Your task to perform on an android device: check storage Image 0: 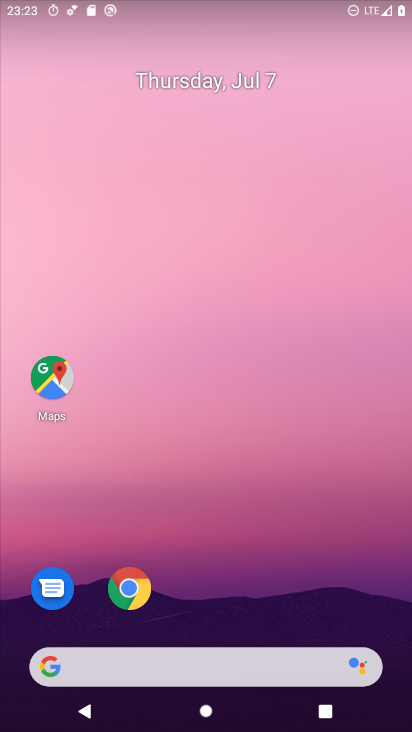
Step 0: drag from (251, 589) to (235, 66)
Your task to perform on an android device: check storage Image 1: 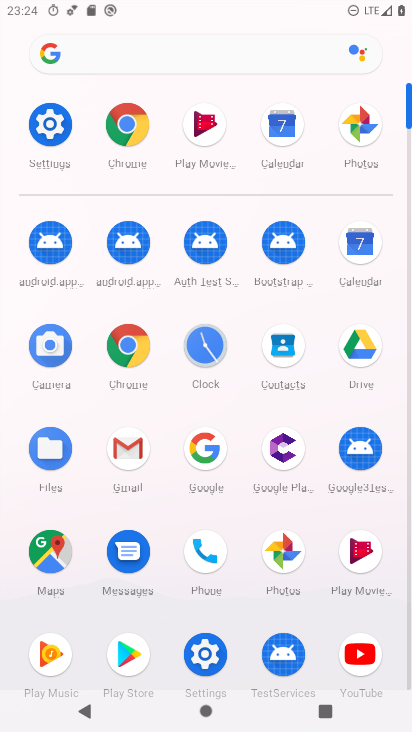
Step 1: click (51, 128)
Your task to perform on an android device: check storage Image 2: 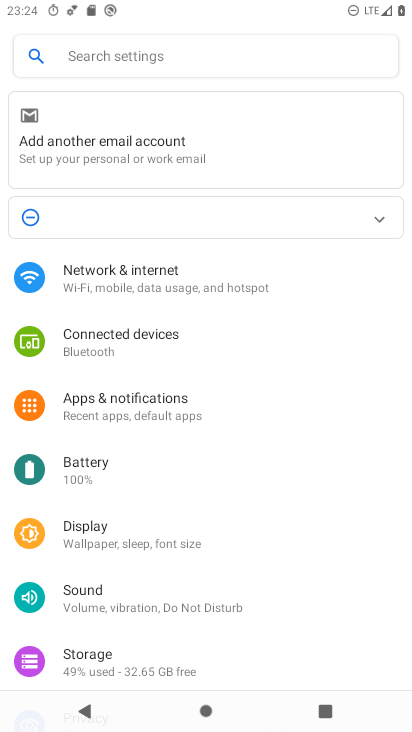
Step 2: click (93, 660)
Your task to perform on an android device: check storage Image 3: 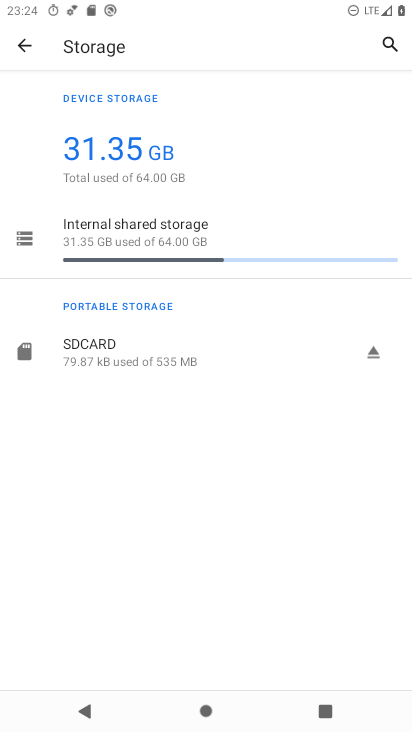
Step 3: task complete